Your task to perform on an android device: open app "WhatsApp Messenger" (install if not already installed) and enter user name: "cartons@outlook.com" and password: "approximated" Image 0: 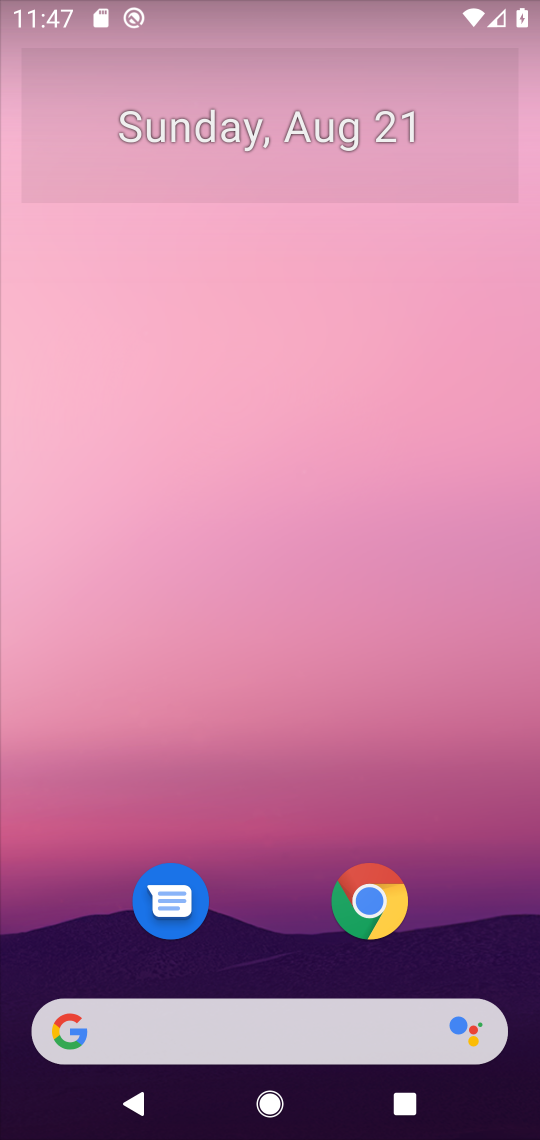
Step 0: drag from (292, 978) to (338, 152)
Your task to perform on an android device: open app "WhatsApp Messenger" (install if not already installed) and enter user name: "cartons@outlook.com" and password: "approximated" Image 1: 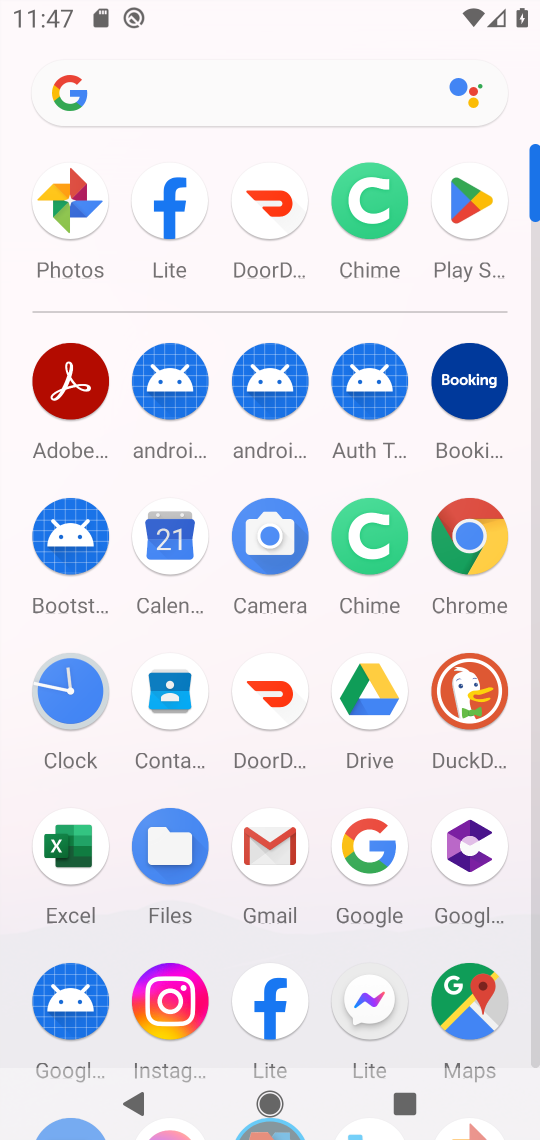
Step 1: click (461, 316)
Your task to perform on an android device: open app "WhatsApp Messenger" (install if not already installed) and enter user name: "cartons@outlook.com" and password: "approximated" Image 2: 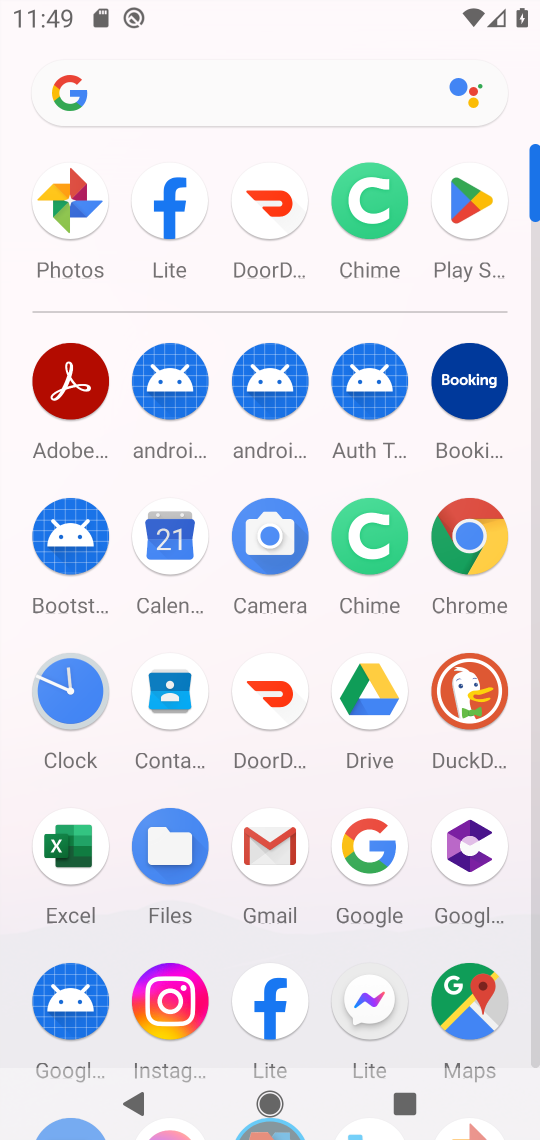
Step 2: click (442, 204)
Your task to perform on an android device: open app "WhatsApp Messenger" (install if not already installed) and enter user name: "cartons@outlook.com" and password: "approximated" Image 3: 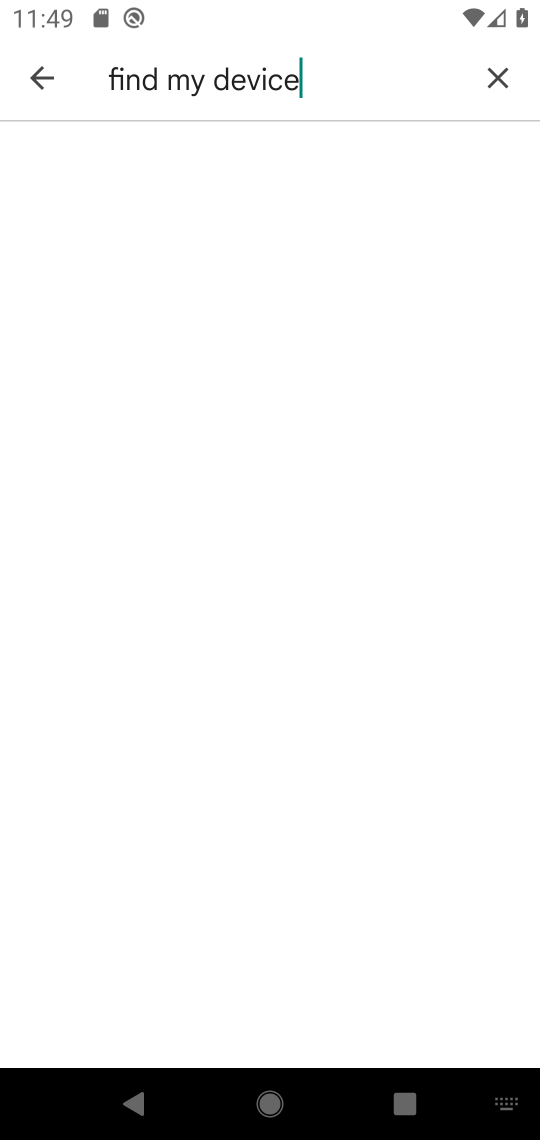
Step 3: click (491, 80)
Your task to perform on an android device: open app "WhatsApp Messenger" (install if not already installed) and enter user name: "cartons@outlook.com" and password: "approximated" Image 4: 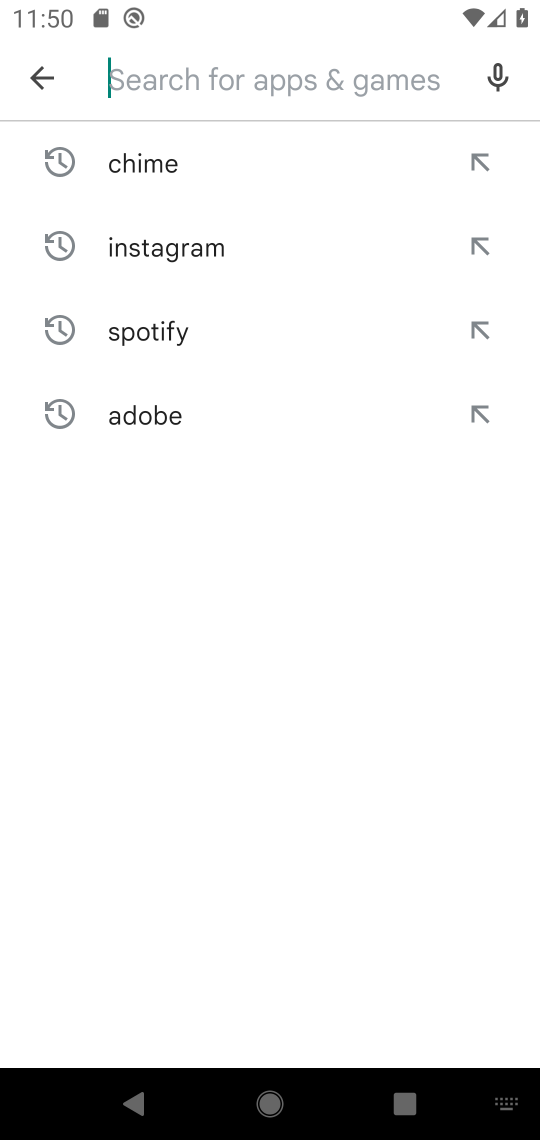
Step 4: type "whatsapp"
Your task to perform on an android device: open app "WhatsApp Messenger" (install if not already installed) and enter user name: "cartons@outlook.com" and password: "approximated" Image 5: 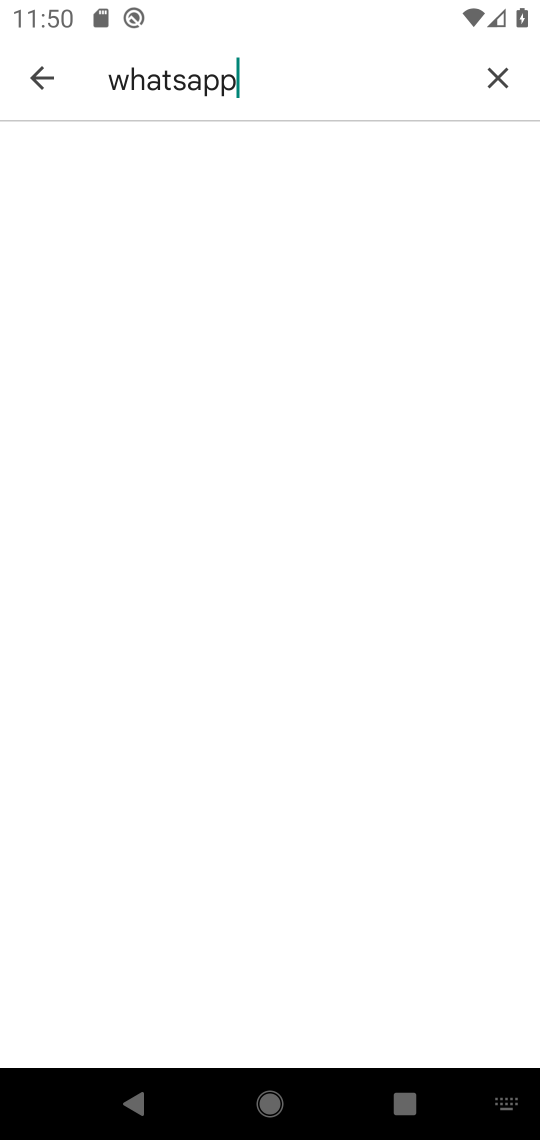
Step 5: task complete